Your task to perform on an android device: Search for Italian restaurants on Maps Image 0: 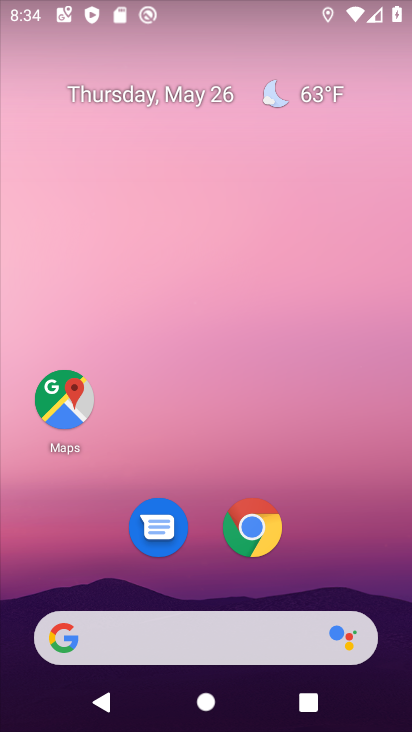
Step 0: drag from (343, 531) to (405, 39)
Your task to perform on an android device: Search for Italian restaurants on Maps Image 1: 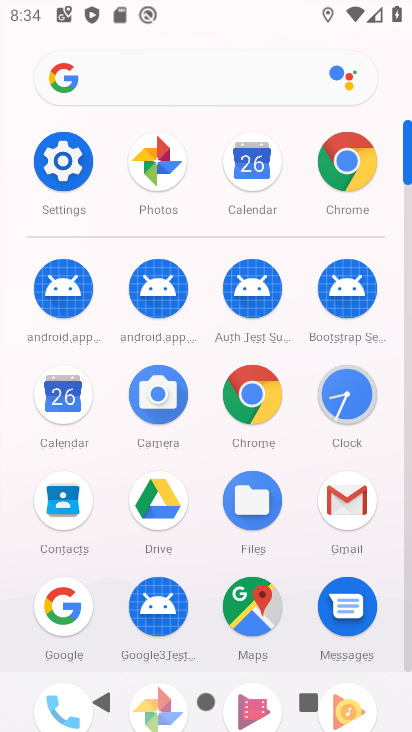
Step 1: drag from (388, 635) to (398, 279)
Your task to perform on an android device: Search for Italian restaurants on Maps Image 2: 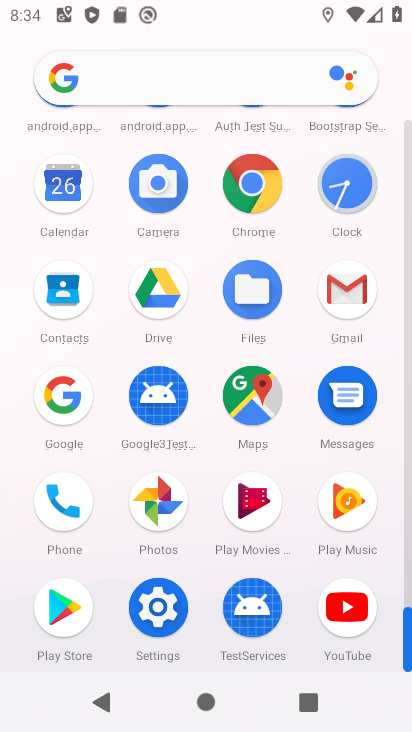
Step 2: click (261, 394)
Your task to perform on an android device: Search for Italian restaurants on Maps Image 3: 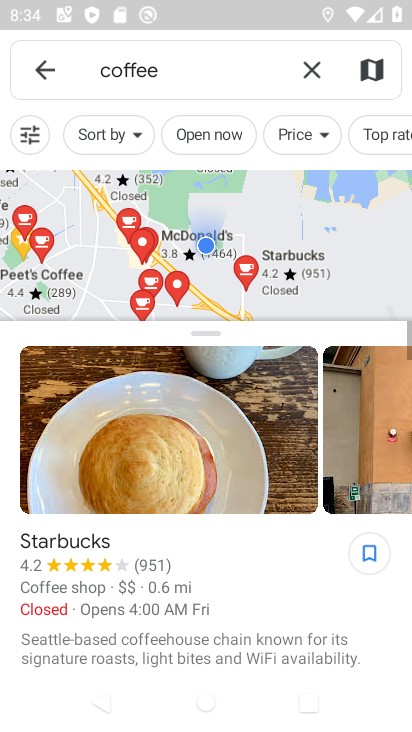
Step 3: click (304, 73)
Your task to perform on an android device: Search for Italian restaurants on Maps Image 4: 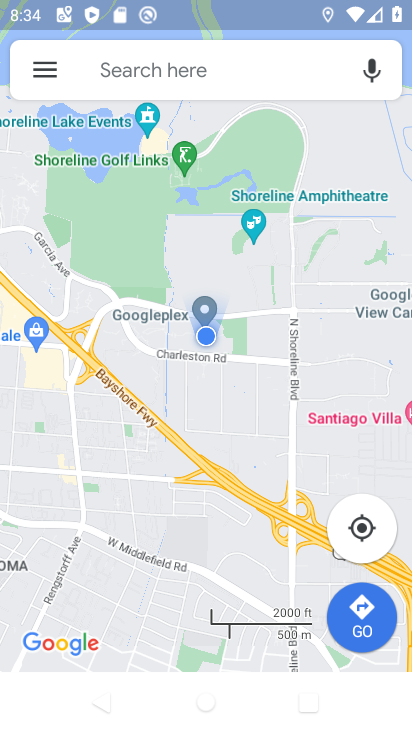
Step 4: click (200, 66)
Your task to perform on an android device: Search for Italian restaurants on Maps Image 5: 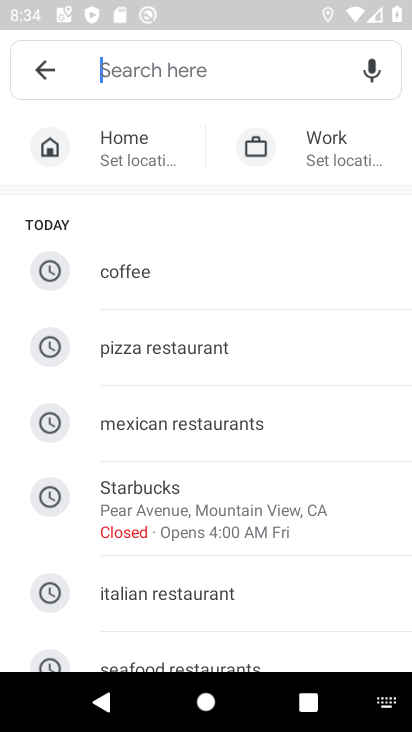
Step 5: click (252, 582)
Your task to perform on an android device: Search for Italian restaurants on Maps Image 6: 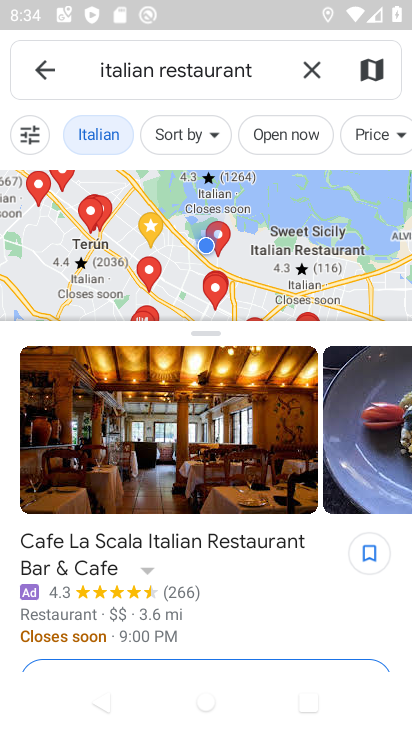
Step 6: task complete